Your task to perform on an android device: change the clock display to analog Image 0: 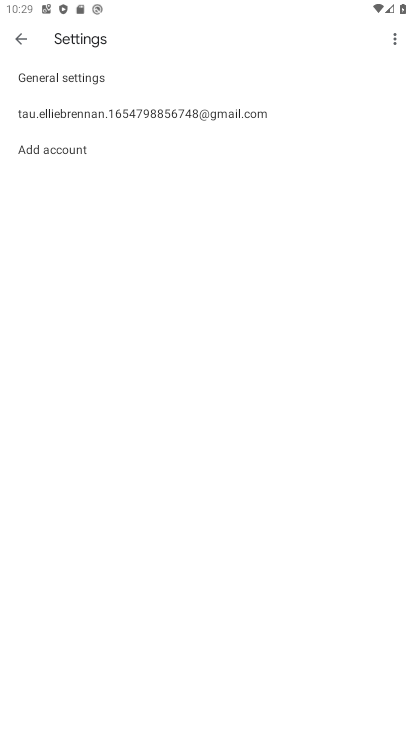
Step 0: press home button
Your task to perform on an android device: change the clock display to analog Image 1: 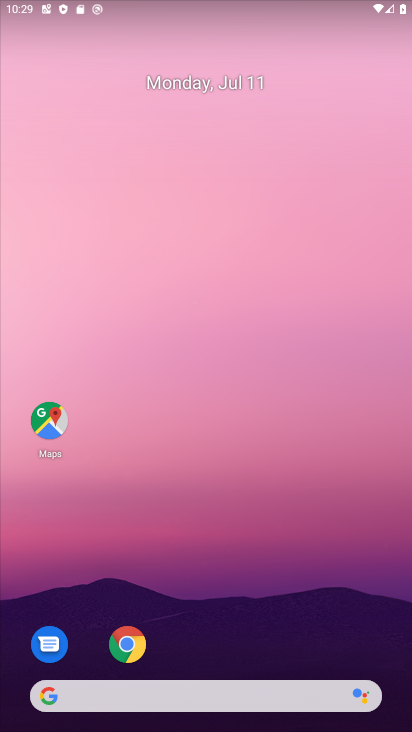
Step 1: drag from (210, 652) to (228, 55)
Your task to perform on an android device: change the clock display to analog Image 2: 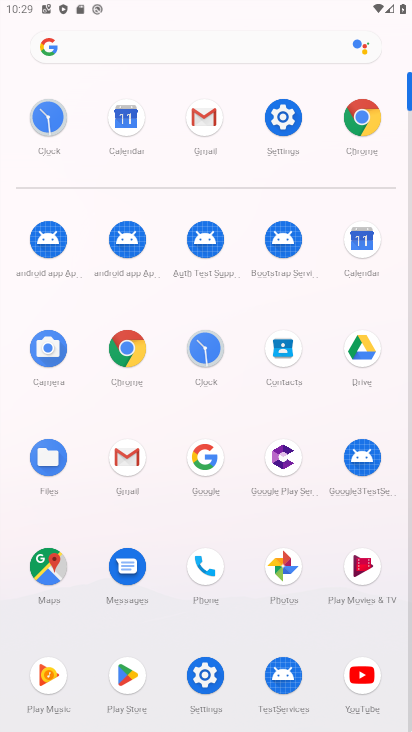
Step 2: click (206, 346)
Your task to perform on an android device: change the clock display to analog Image 3: 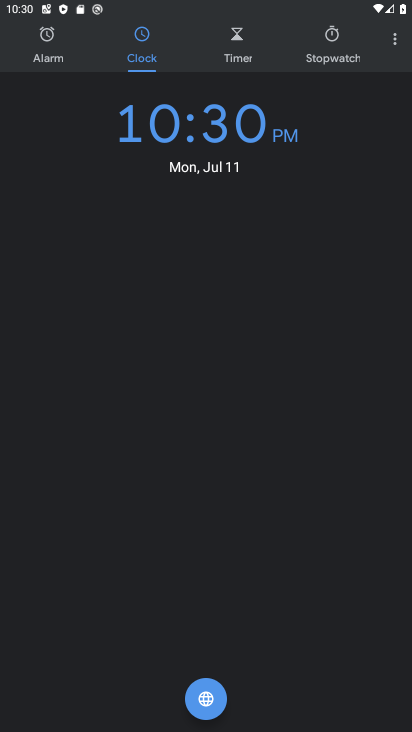
Step 3: click (390, 40)
Your task to perform on an android device: change the clock display to analog Image 4: 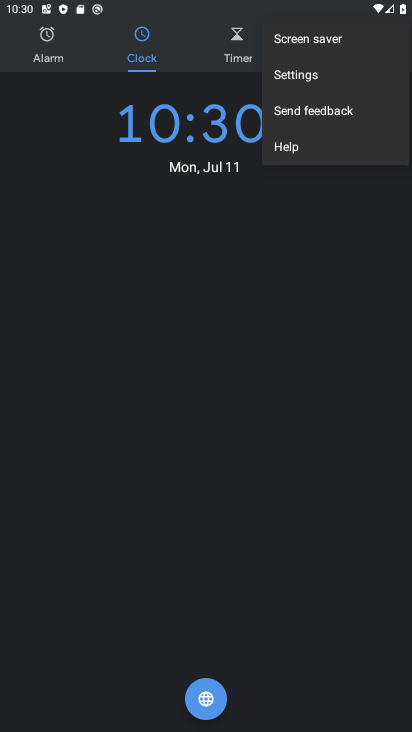
Step 4: click (319, 75)
Your task to perform on an android device: change the clock display to analog Image 5: 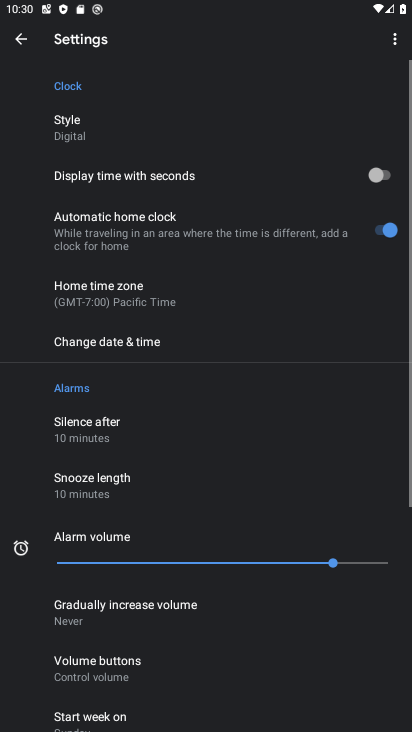
Step 5: click (105, 129)
Your task to perform on an android device: change the clock display to analog Image 6: 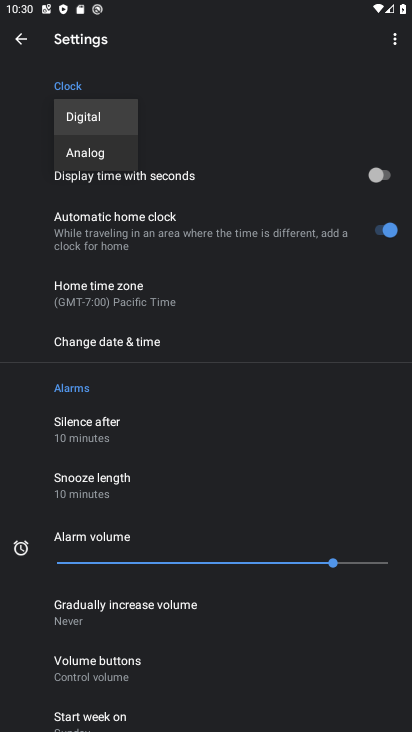
Step 6: click (111, 156)
Your task to perform on an android device: change the clock display to analog Image 7: 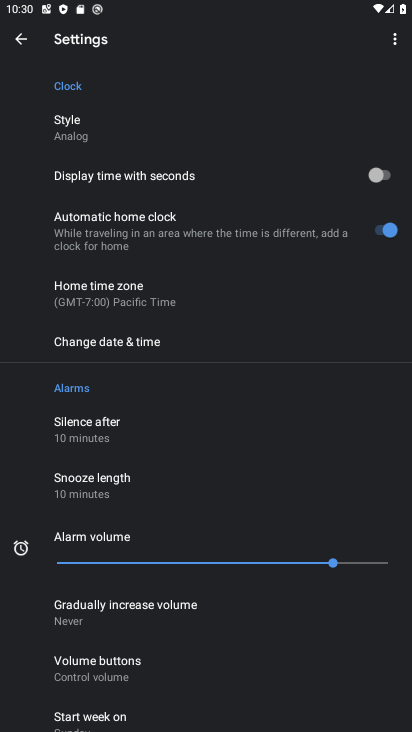
Step 7: task complete